Your task to perform on an android device: Search for pizza restaurants on Maps Image 0: 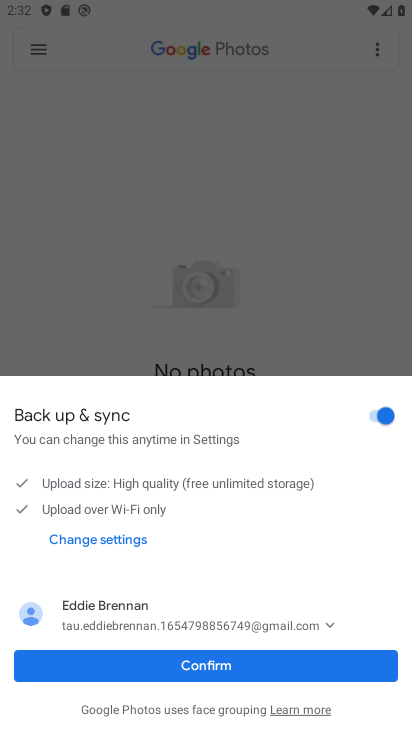
Step 0: press home button
Your task to perform on an android device: Search for pizza restaurants on Maps Image 1: 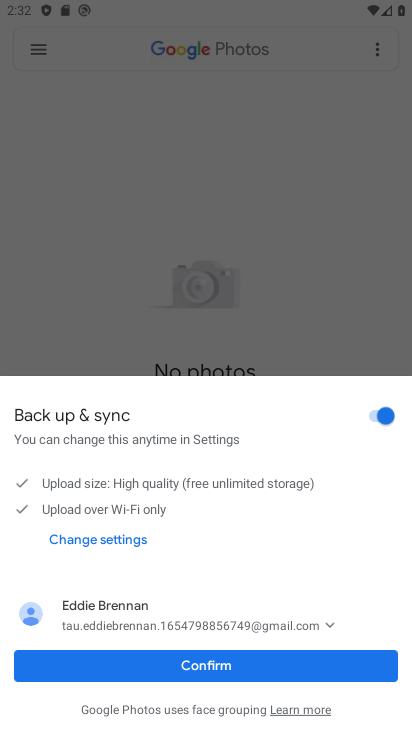
Step 1: press home button
Your task to perform on an android device: Search for pizza restaurants on Maps Image 2: 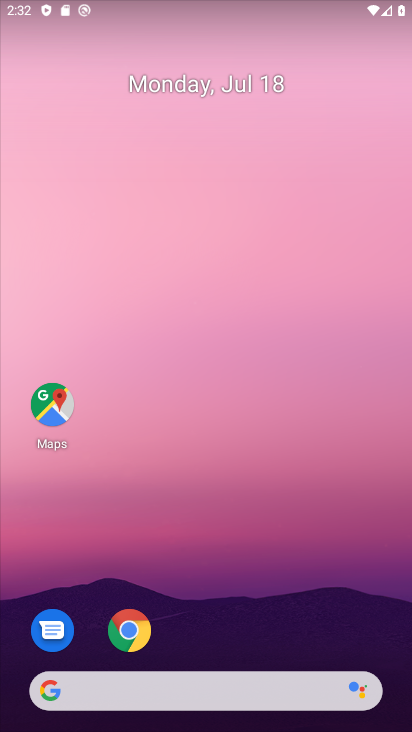
Step 2: drag from (229, 585) to (239, 100)
Your task to perform on an android device: Search for pizza restaurants on Maps Image 3: 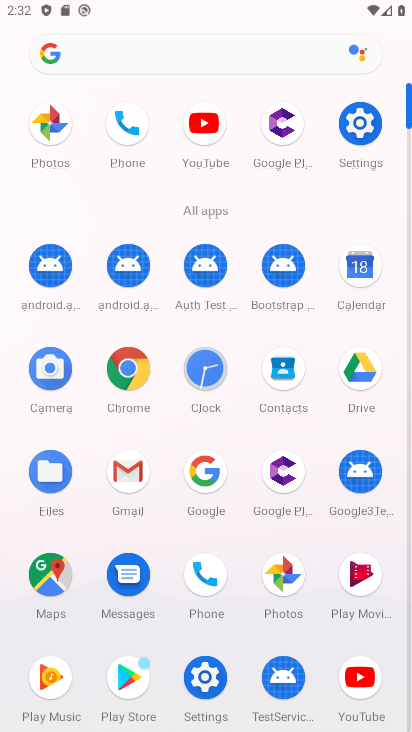
Step 3: click (52, 571)
Your task to perform on an android device: Search for pizza restaurants on Maps Image 4: 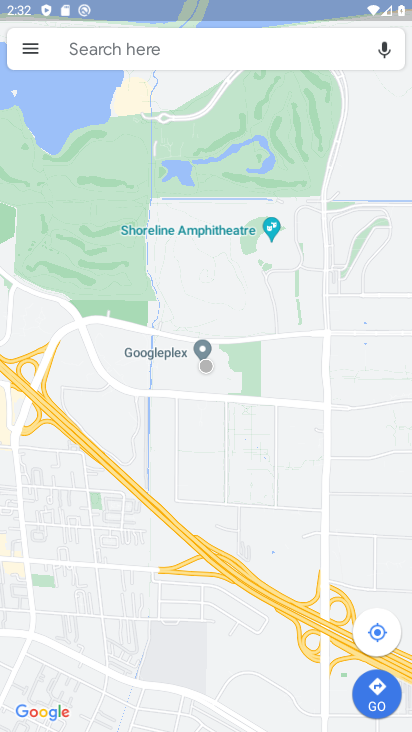
Step 4: click (200, 48)
Your task to perform on an android device: Search for pizza restaurants on Maps Image 5: 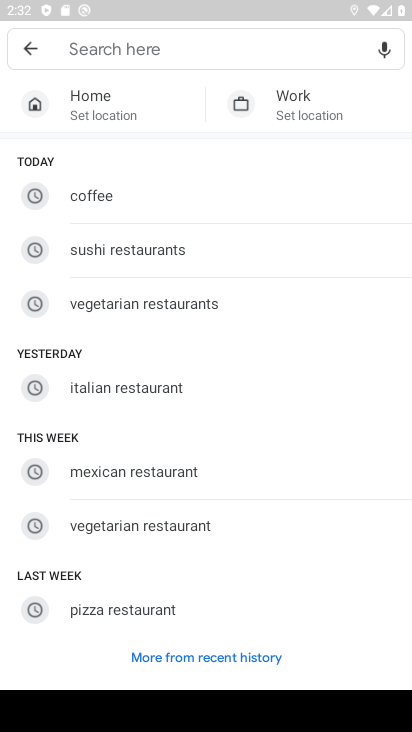
Step 5: type "pizza restaurants"
Your task to perform on an android device: Search for pizza restaurants on Maps Image 6: 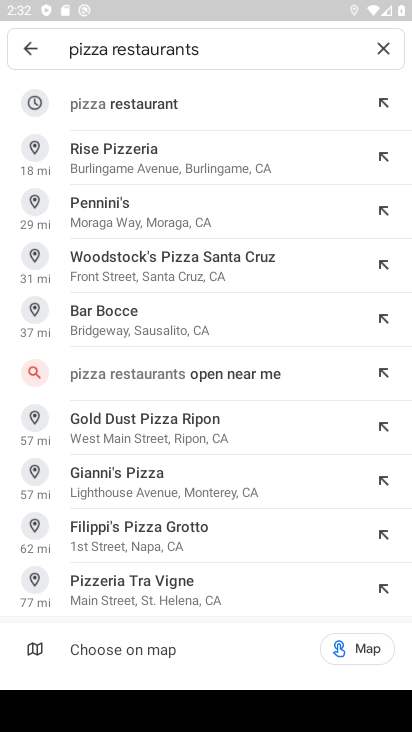
Step 6: press enter
Your task to perform on an android device: Search for pizza restaurants on Maps Image 7: 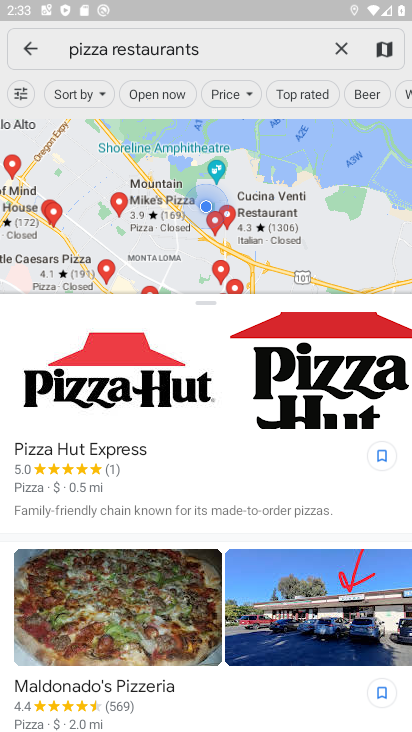
Step 7: task complete